Your task to perform on an android device: Show the shopping cart on bestbuy.com. Search for "macbook pro 13 inch" on bestbuy.com, select the first entry, add it to the cart, then select checkout. Image 0: 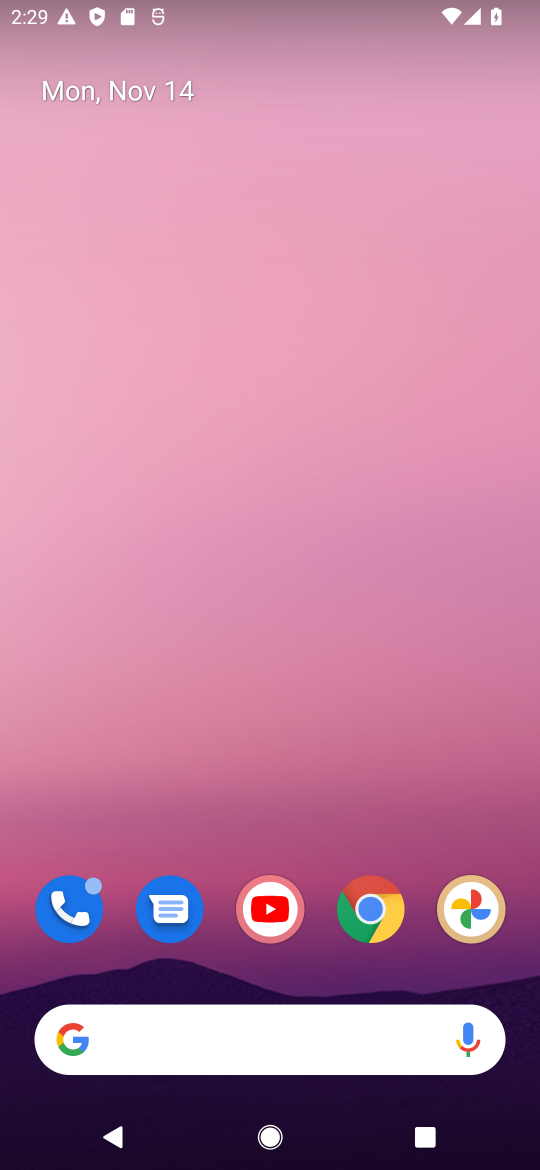
Step 0: drag from (301, 971) to (335, 17)
Your task to perform on an android device: Show the shopping cart on bestbuy.com. Search for "macbook pro 13 inch" on bestbuy.com, select the first entry, add it to the cart, then select checkout. Image 1: 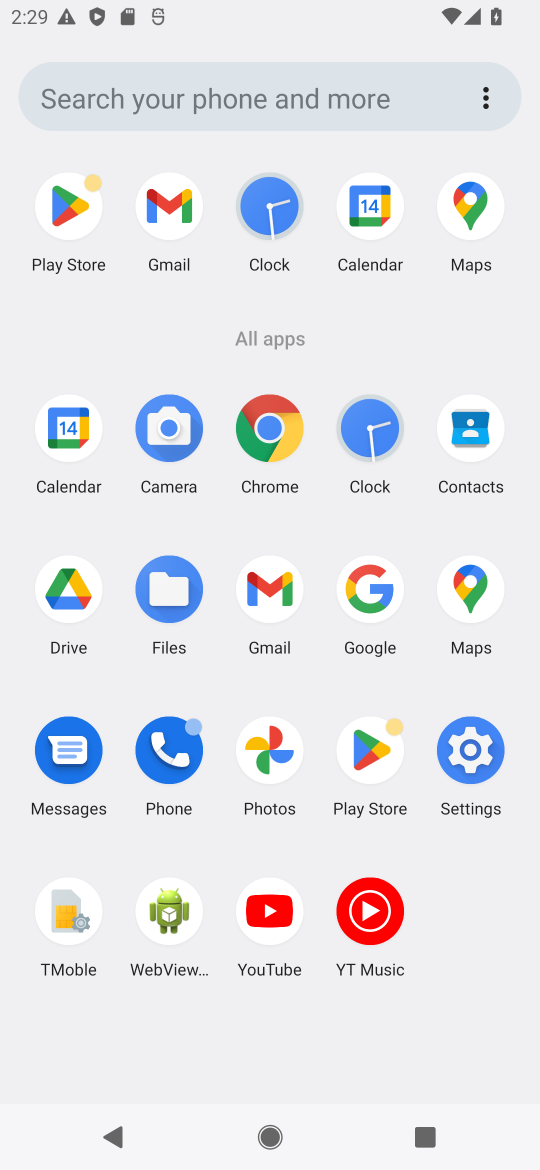
Step 1: click (263, 421)
Your task to perform on an android device: Show the shopping cart on bestbuy.com. Search for "macbook pro 13 inch" on bestbuy.com, select the first entry, add it to the cart, then select checkout. Image 2: 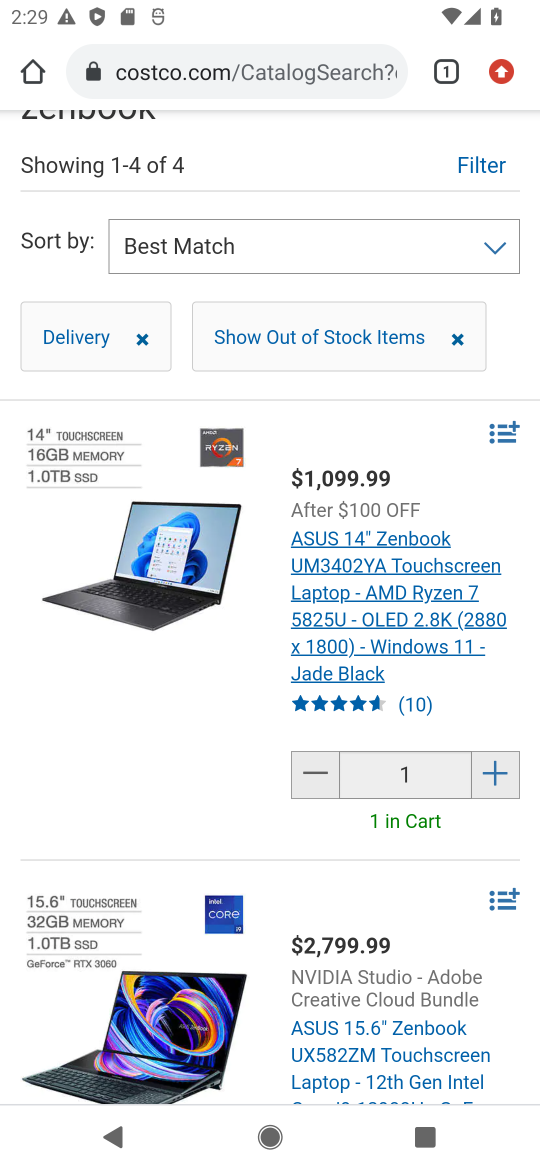
Step 2: click (225, 74)
Your task to perform on an android device: Show the shopping cart on bestbuy.com. Search for "macbook pro 13 inch" on bestbuy.com, select the first entry, add it to the cart, then select checkout. Image 3: 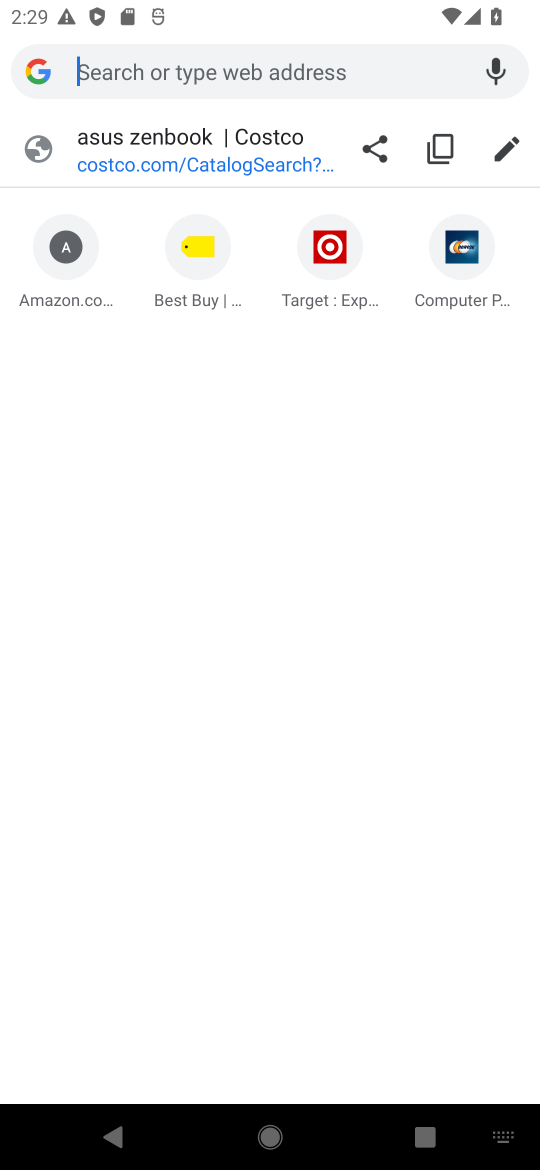
Step 3: type "best"
Your task to perform on an android device: Show the shopping cart on bestbuy.com. Search for "macbook pro 13 inch" on bestbuy.com, select the first entry, add it to the cart, then select checkout. Image 4: 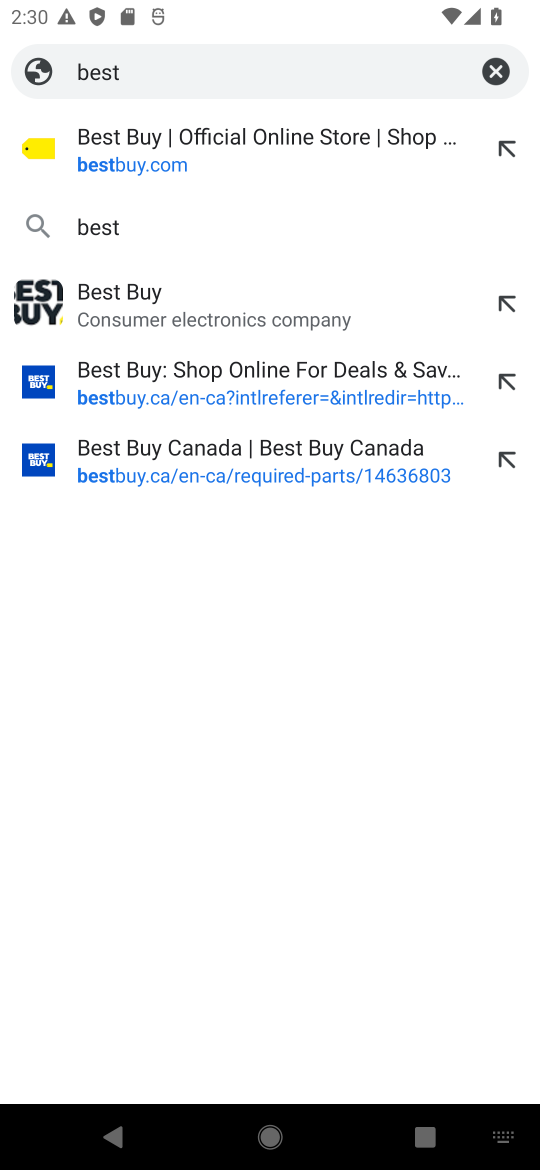
Step 4: type "buy.com"
Your task to perform on an android device: Show the shopping cart on bestbuy.com. Search for "macbook pro 13 inch" on bestbuy.com, select the first entry, add it to the cart, then select checkout. Image 5: 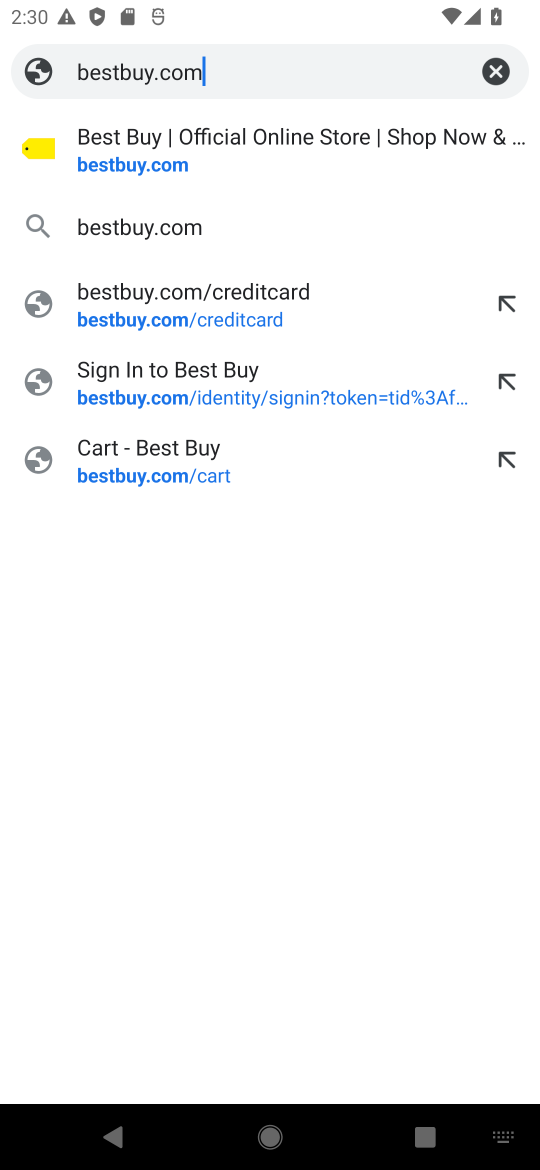
Step 5: press enter
Your task to perform on an android device: Show the shopping cart on bestbuy.com. Search for "macbook pro 13 inch" on bestbuy.com, select the first entry, add it to the cart, then select checkout. Image 6: 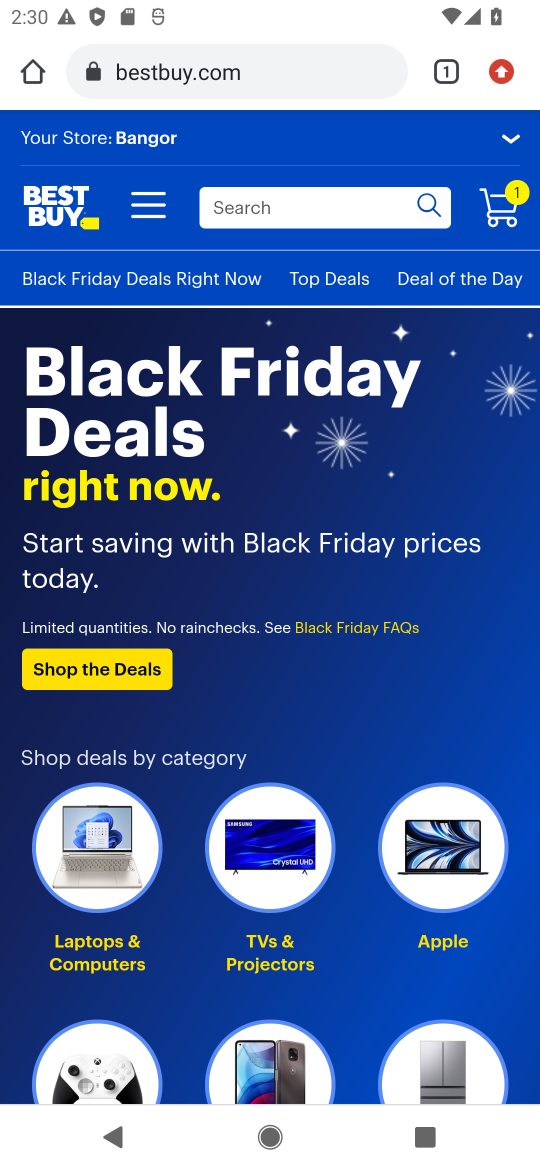
Step 6: click (501, 217)
Your task to perform on an android device: Show the shopping cart on bestbuy.com. Search for "macbook pro 13 inch" on bestbuy.com, select the first entry, add it to the cart, then select checkout. Image 7: 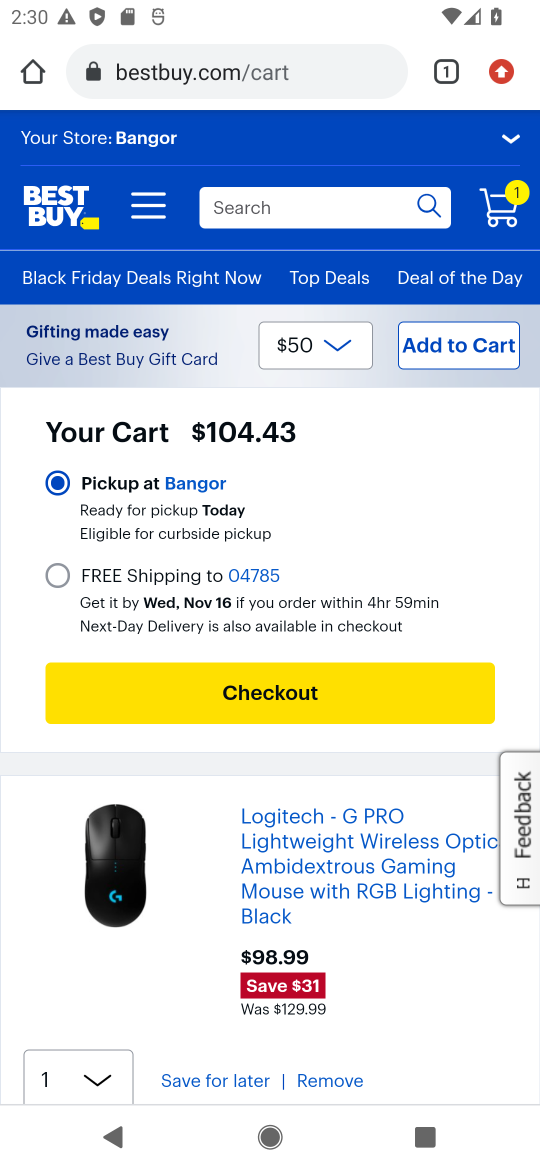
Step 7: click (341, 212)
Your task to perform on an android device: Show the shopping cart on bestbuy.com. Search for "macbook pro 13 inch" on bestbuy.com, select the first entry, add it to the cart, then select checkout. Image 8: 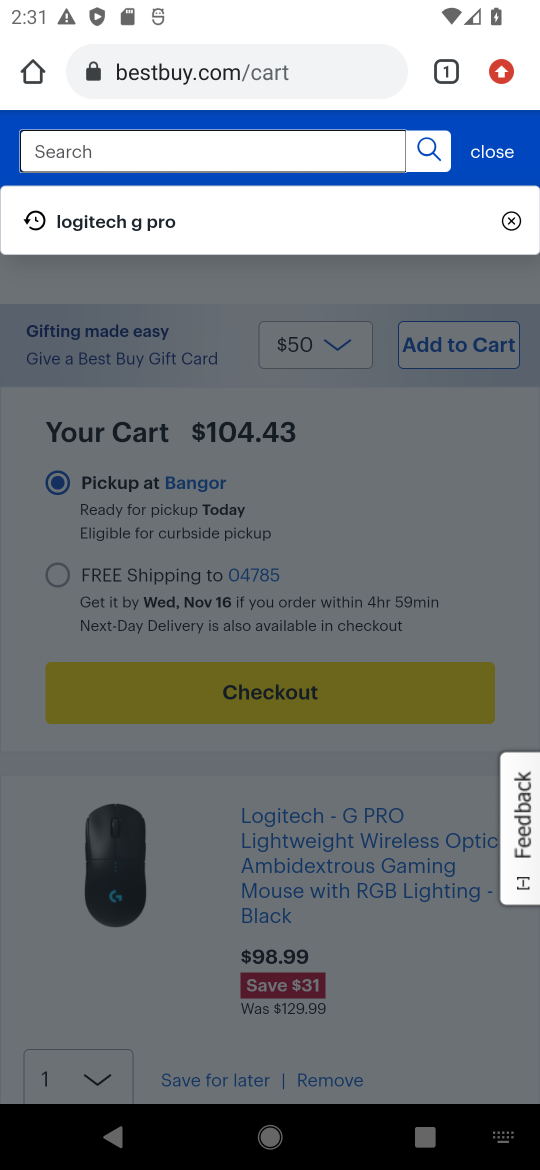
Step 8: type "macbook pro 13 inch"
Your task to perform on an android device: Show the shopping cart on bestbuy.com. Search for "macbook pro 13 inch" on bestbuy.com, select the first entry, add it to the cart, then select checkout. Image 9: 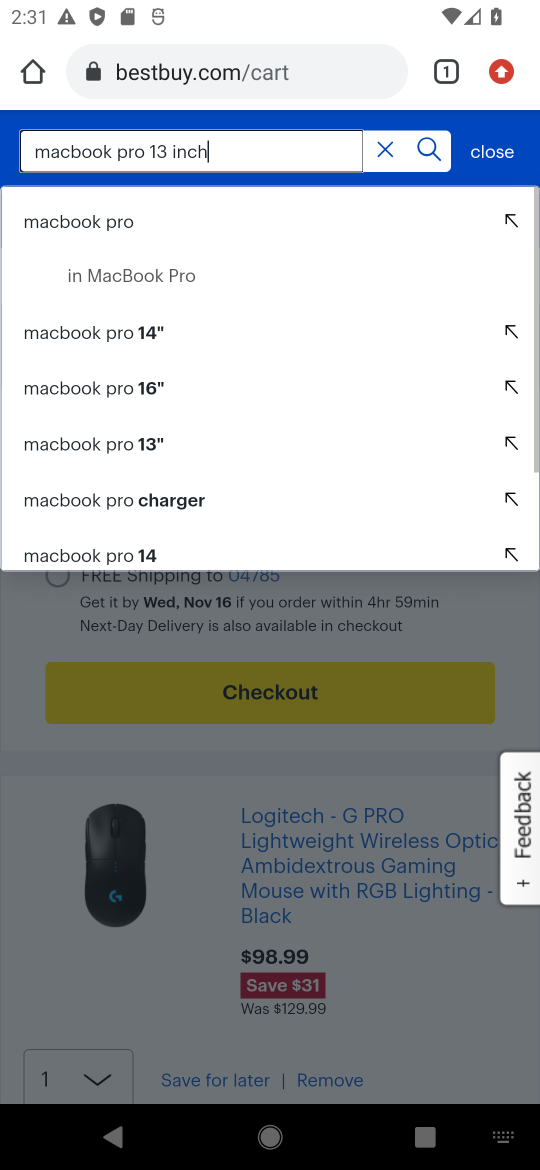
Step 9: press enter
Your task to perform on an android device: Show the shopping cart on bestbuy.com. Search for "macbook pro 13 inch" on bestbuy.com, select the first entry, add it to the cart, then select checkout. Image 10: 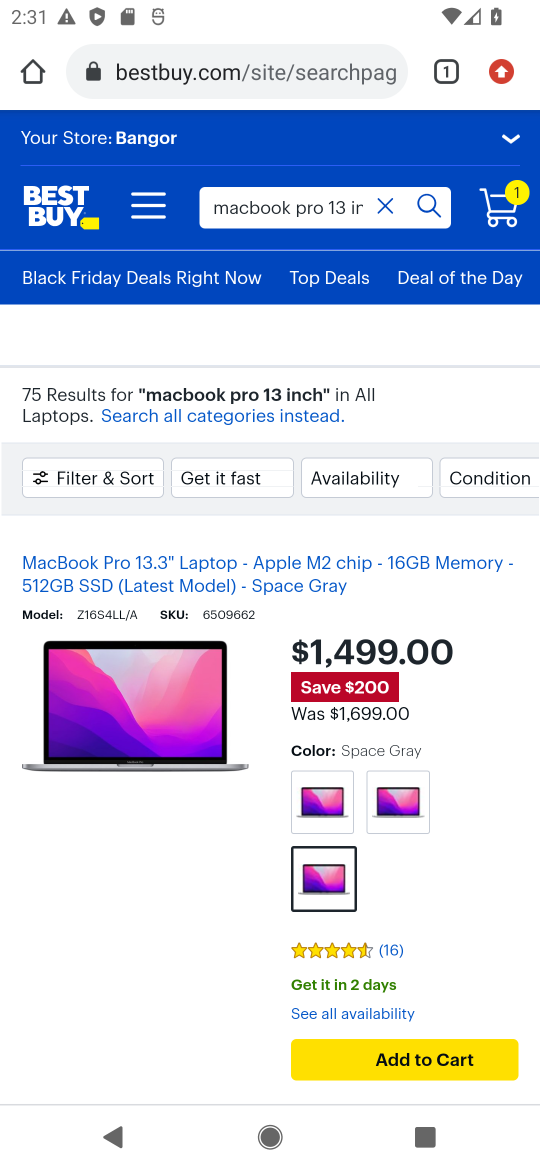
Step 10: drag from (209, 1015) to (215, 821)
Your task to perform on an android device: Show the shopping cart on bestbuy.com. Search for "macbook pro 13 inch" on bestbuy.com, select the first entry, add it to the cart, then select checkout. Image 11: 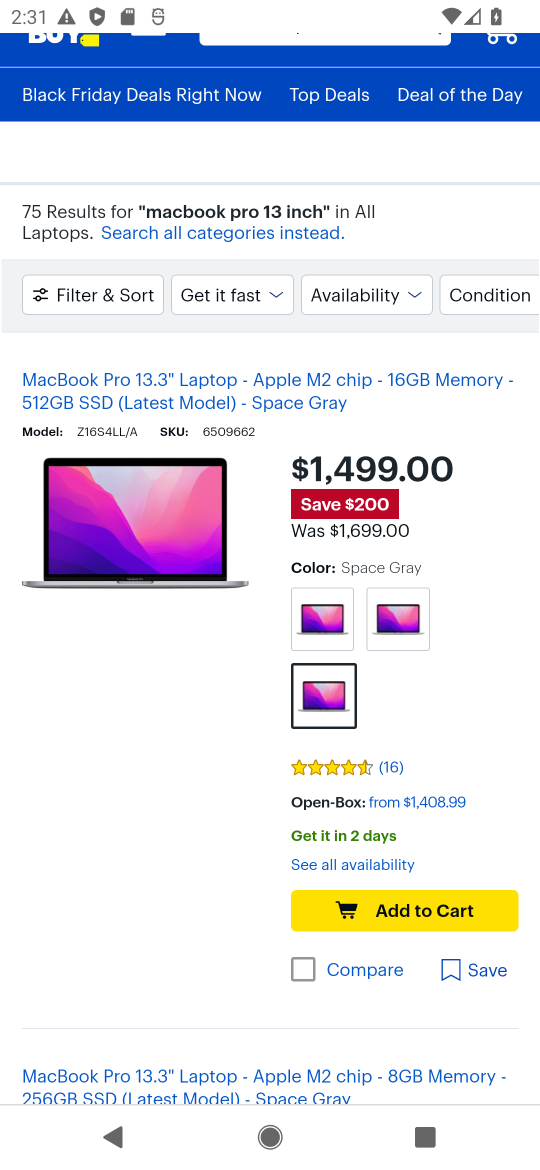
Step 11: click (434, 906)
Your task to perform on an android device: Show the shopping cart on bestbuy.com. Search for "macbook pro 13 inch" on bestbuy.com, select the first entry, add it to the cart, then select checkout. Image 12: 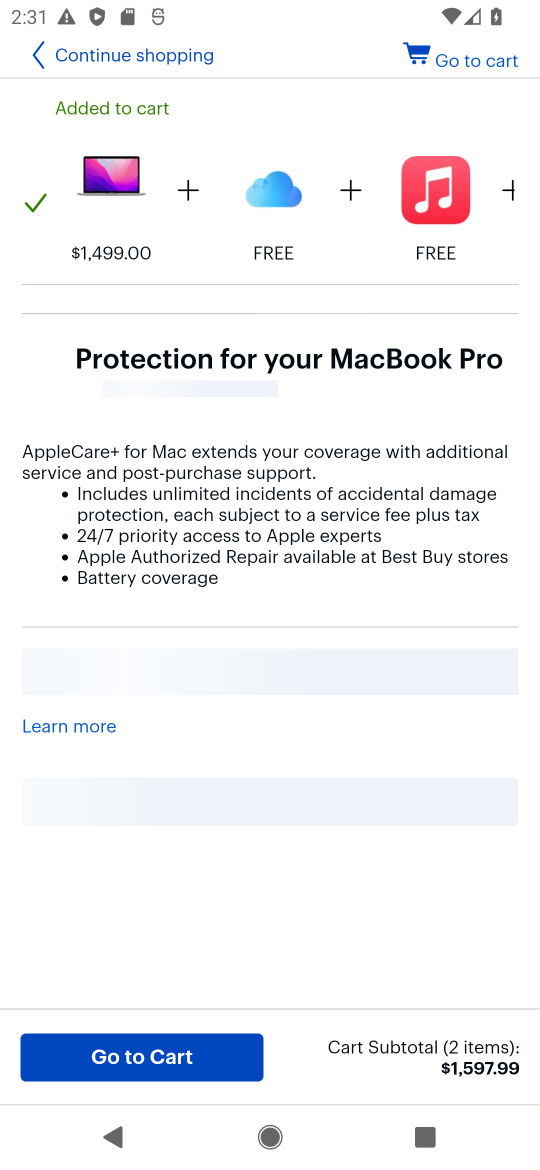
Step 12: click (157, 1059)
Your task to perform on an android device: Show the shopping cart on bestbuy.com. Search for "macbook pro 13 inch" on bestbuy.com, select the first entry, add it to the cart, then select checkout. Image 13: 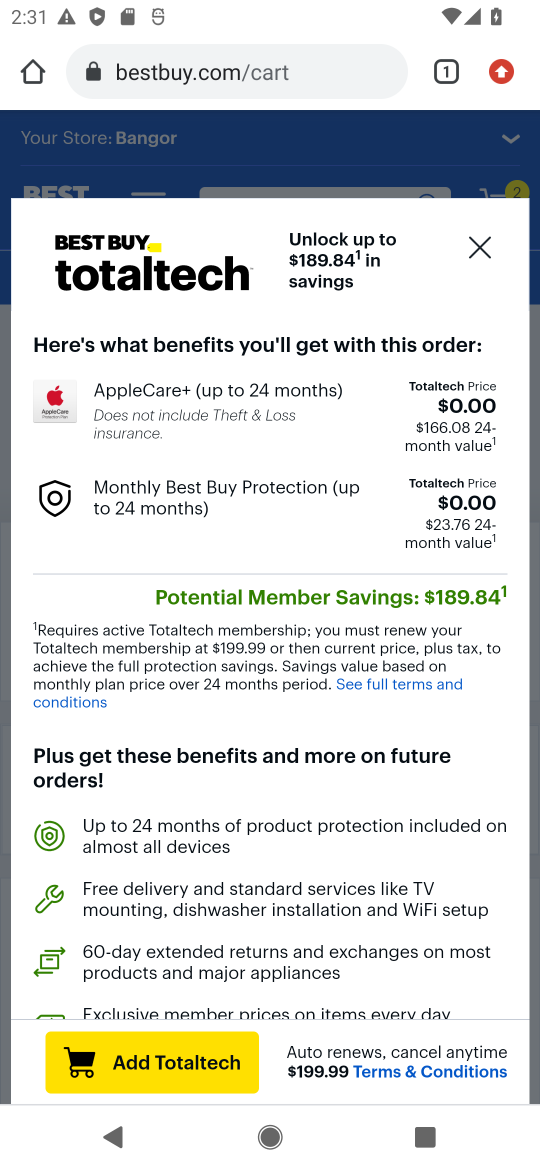
Step 13: click (493, 250)
Your task to perform on an android device: Show the shopping cart on bestbuy.com. Search for "macbook pro 13 inch" on bestbuy.com, select the first entry, add it to the cart, then select checkout. Image 14: 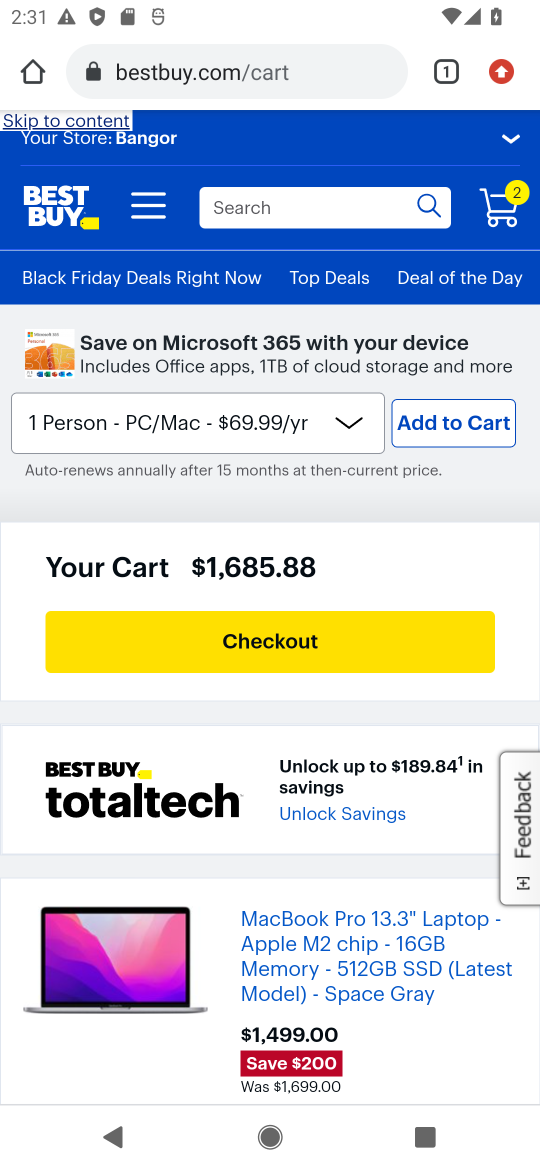
Step 14: click (350, 620)
Your task to perform on an android device: Show the shopping cart on bestbuy.com. Search for "macbook pro 13 inch" on bestbuy.com, select the first entry, add it to the cart, then select checkout. Image 15: 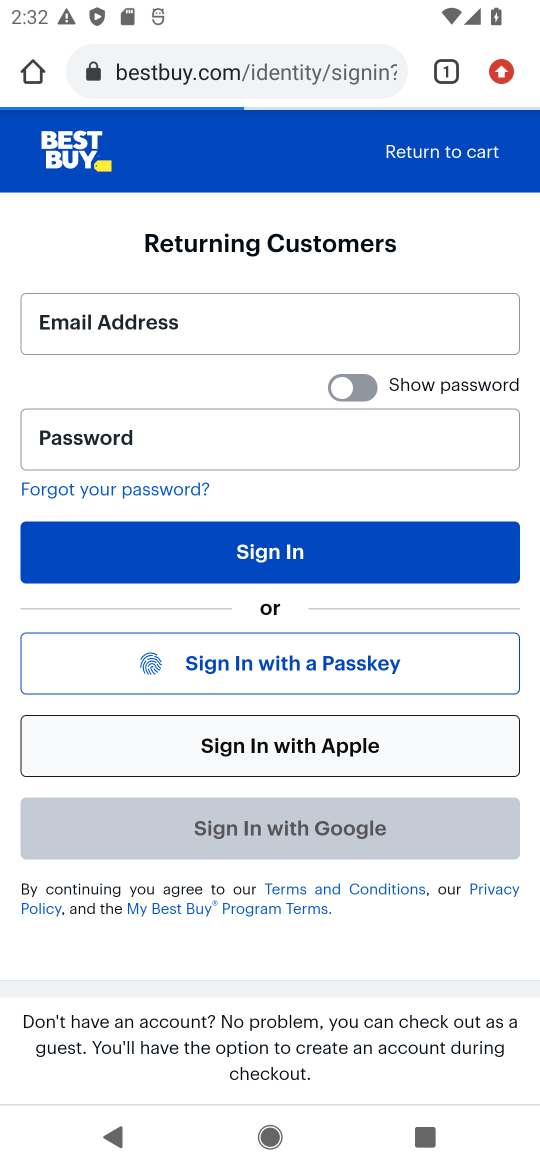
Step 15: task complete